Your task to perform on an android device: open the mobile data screen to see how much data has been used Image 0: 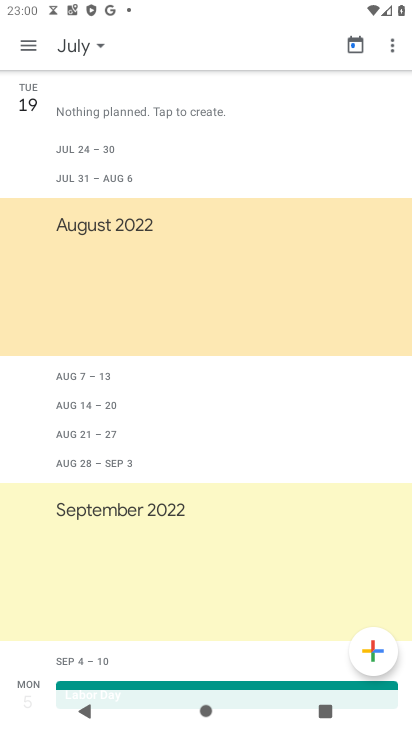
Step 0: press home button
Your task to perform on an android device: open the mobile data screen to see how much data has been used Image 1: 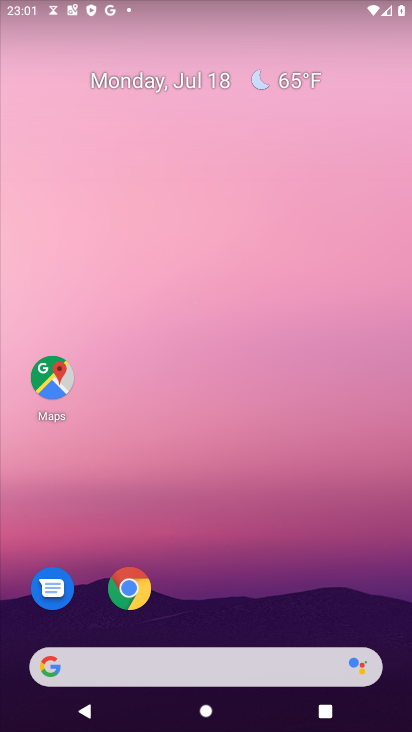
Step 1: drag from (214, 671) to (356, 86)
Your task to perform on an android device: open the mobile data screen to see how much data has been used Image 2: 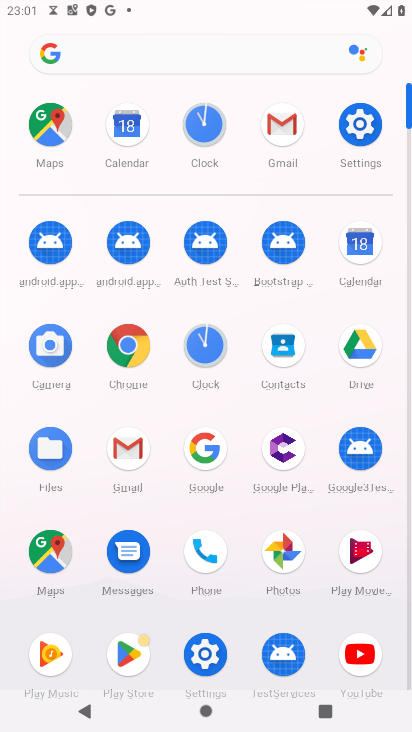
Step 2: click (360, 124)
Your task to perform on an android device: open the mobile data screen to see how much data has been used Image 3: 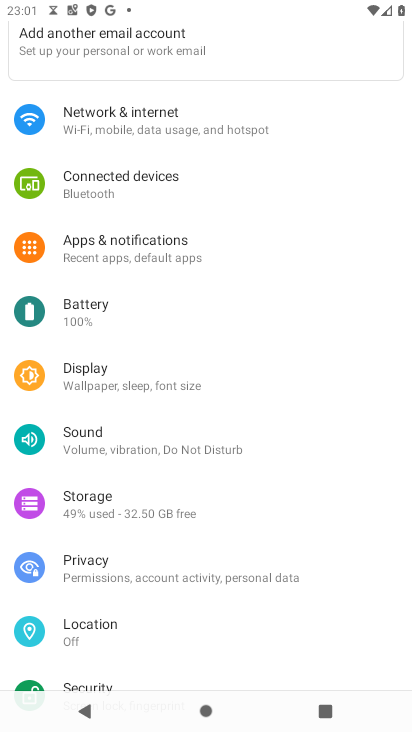
Step 3: click (149, 118)
Your task to perform on an android device: open the mobile data screen to see how much data has been used Image 4: 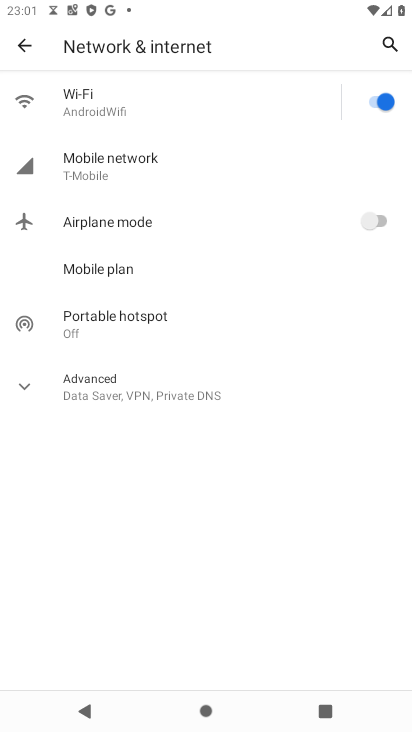
Step 4: click (123, 162)
Your task to perform on an android device: open the mobile data screen to see how much data has been used Image 5: 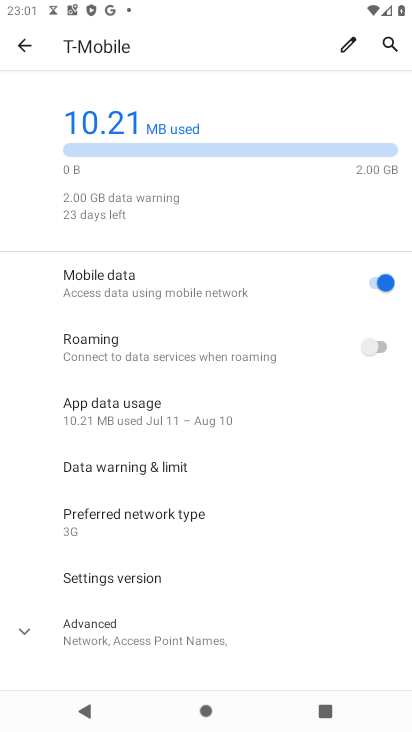
Step 5: task complete